Your task to perform on an android device: Show me productivity apps on the Play Store Image 0: 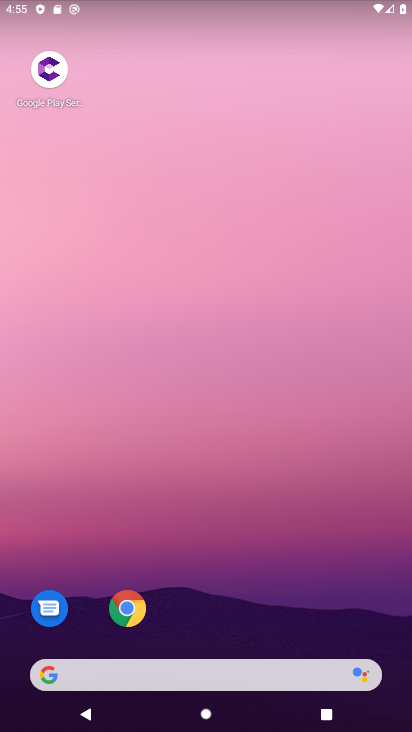
Step 0: drag from (253, 549) to (176, 49)
Your task to perform on an android device: Show me productivity apps on the Play Store Image 1: 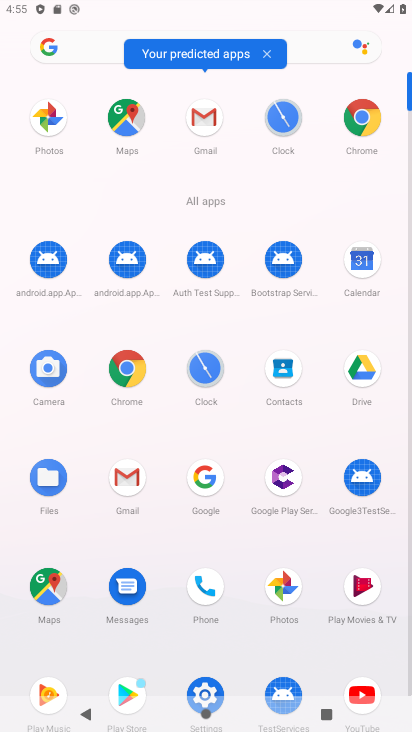
Step 1: drag from (173, 476) to (236, 279)
Your task to perform on an android device: Show me productivity apps on the Play Store Image 2: 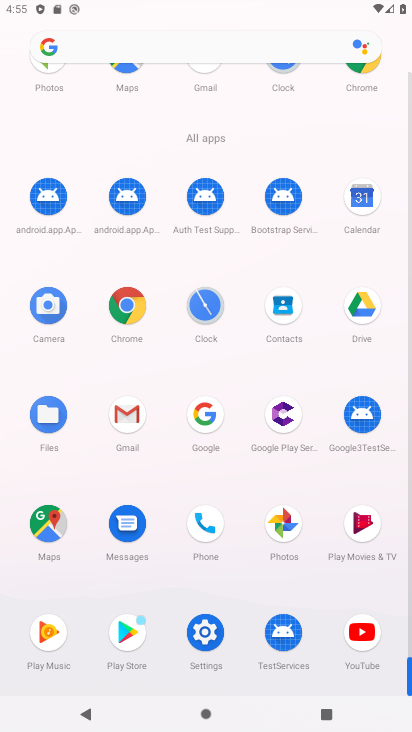
Step 2: click (127, 630)
Your task to perform on an android device: Show me productivity apps on the Play Store Image 3: 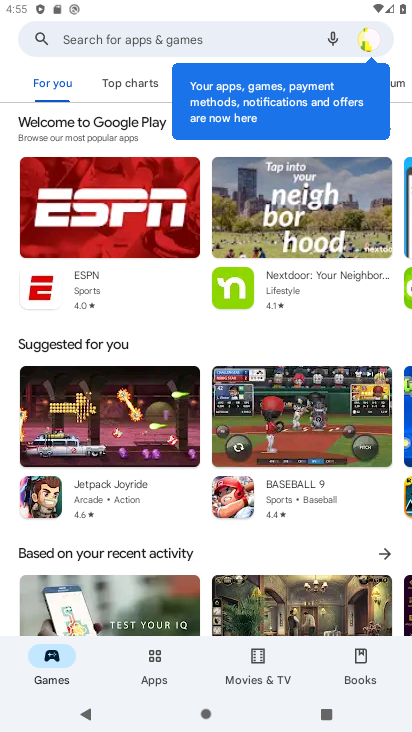
Step 3: click (153, 655)
Your task to perform on an android device: Show me productivity apps on the Play Store Image 4: 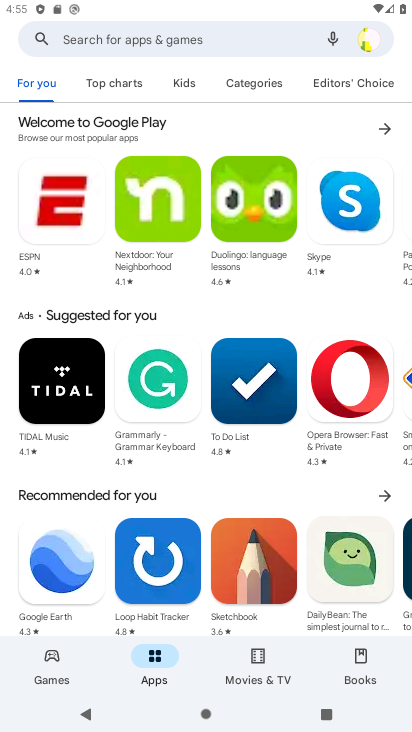
Step 4: click (256, 82)
Your task to perform on an android device: Show me productivity apps on the Play Store Image 5: 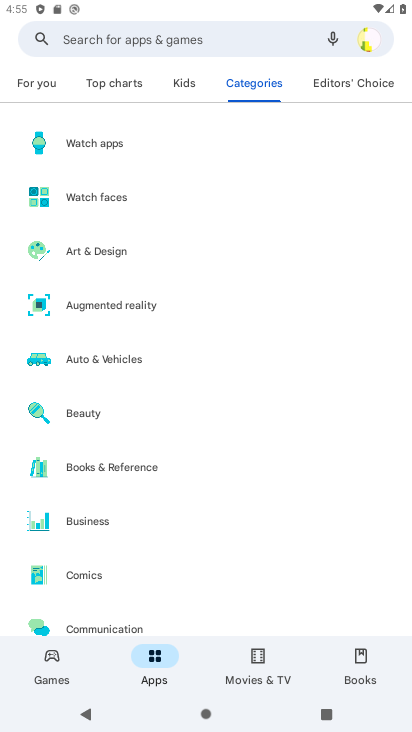
Step 5: drag from (155, 522) to (213, 422)
Your task to perform on an android device: Show me productivity apps on the Play Store Image 6: 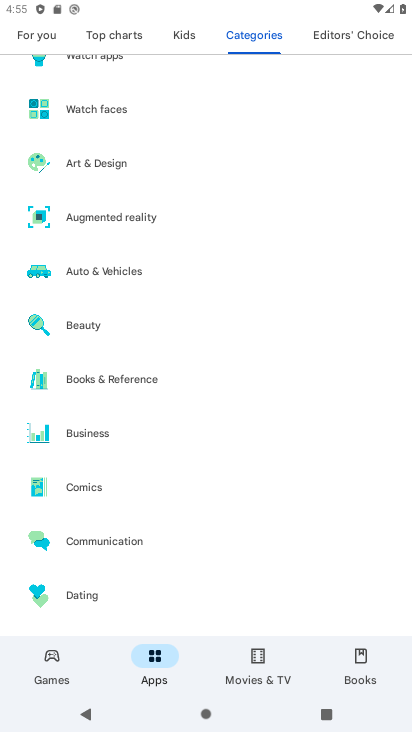
Step 6: drag from (128, 509) to (205, 407)
Your task to perform on an android device: Show me productivity apps on the Play Store Image 7: 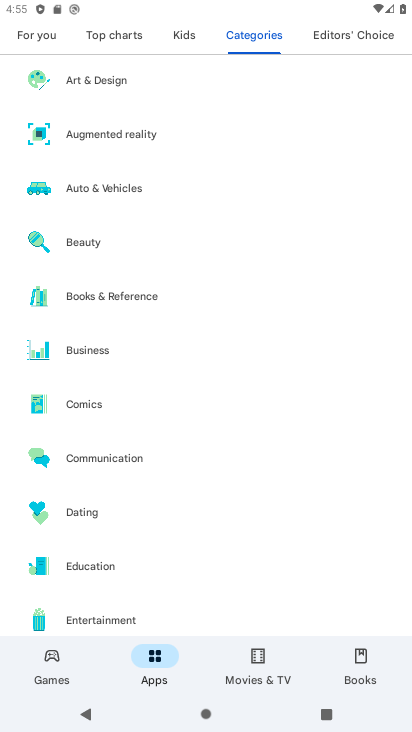
Step 7: drag from (134, 511) to (167, 362)
Your task to perform on an android device: Show me productivity apps on the Play Store Image 8: 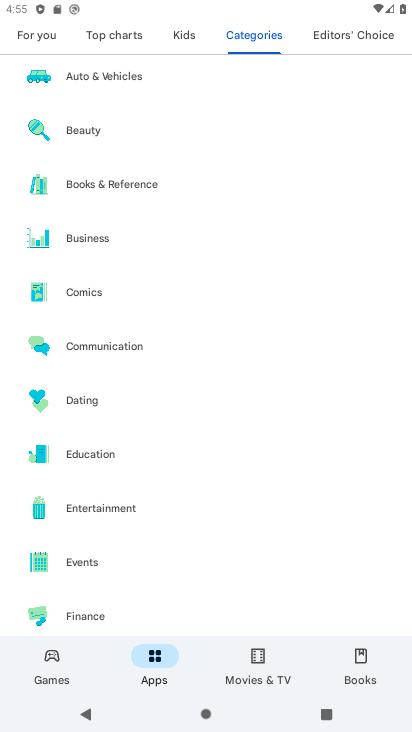
Step 8: drag from (78, 544) to (119, 423)
Your task to perform on an android device: Show me productivity apps on the Play Store Image 9: 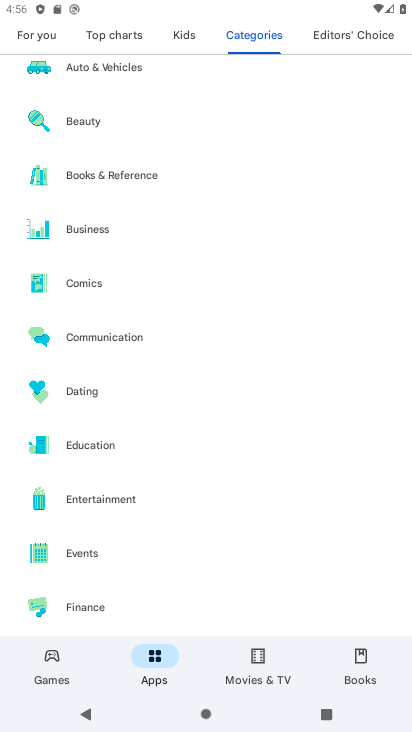
Step 9: drag from (73, 578) to (128, 438)
Your task to perform on an android device: Show me productivity apps on the Play Store Image 10: 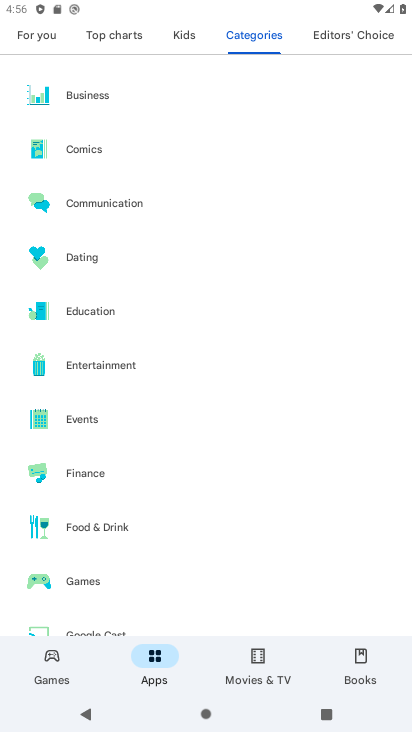
Step 10: drag from (83, 502) to (102, 380)
Your task to perform on an android device: Show me productivity apps on the Play Store Image 11: 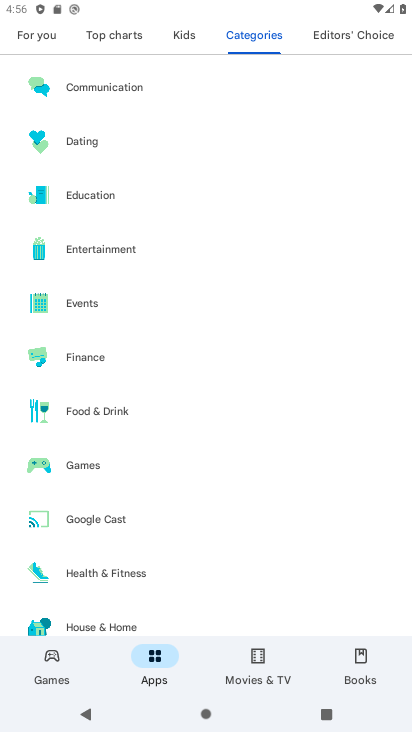
Step 11: drag from (100, 533) to (127, 405)
Your task to perform on an android device: Show me productivity apps on the Play Store Image 12: 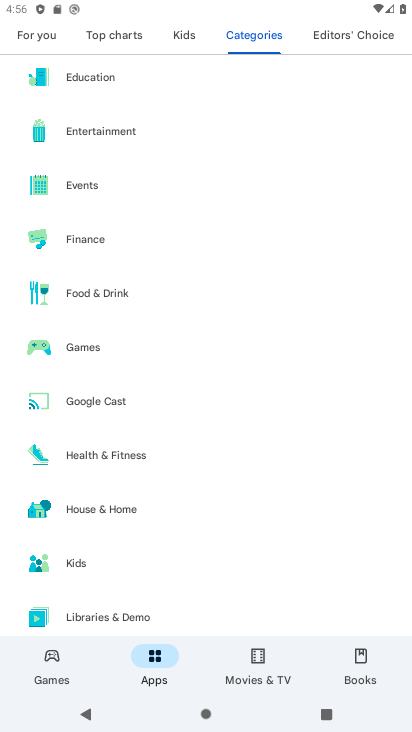
Step 12: drag from (90, 531) to (141, 299)
Your task to perform on an android device: Show me productivity apps on the Play Store Image 13: 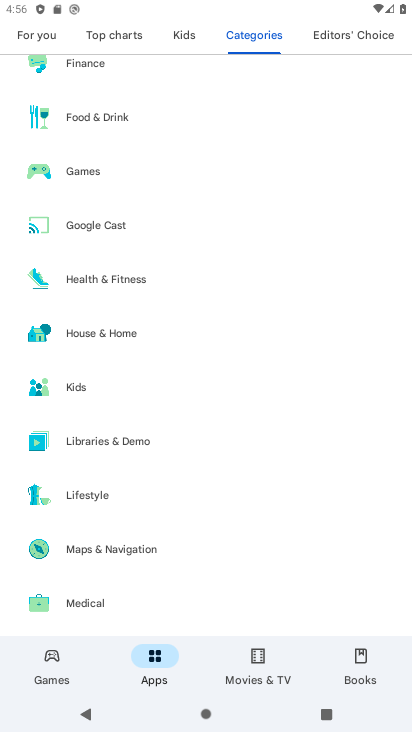
Step 13: drag from (85, 462) to (150, 283)
Your task to perform on an android device: Show me productivity apps on the Play Store Image 14: 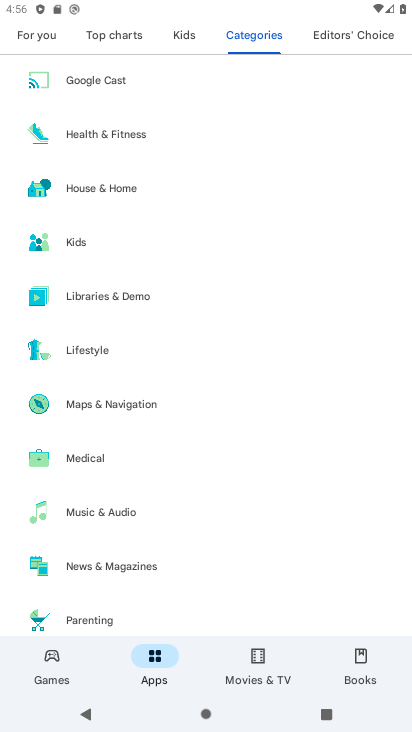
Step 14: drag from (94, 481) to (160, 257)
Your task to perform on an android device: Show me productivity apps on the Play Store Image 15: 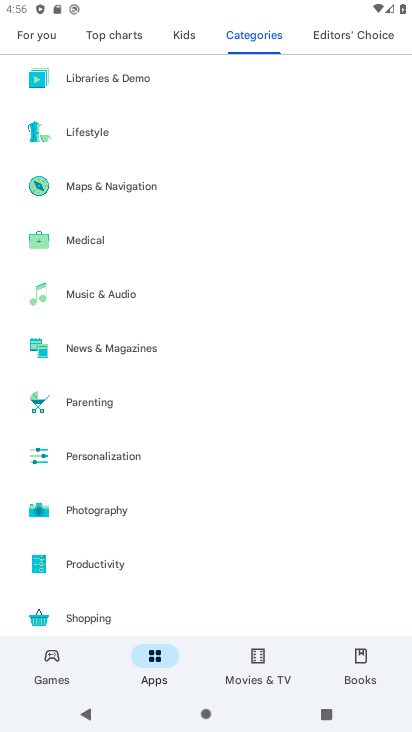
Step 15: click (105, 568)
Your task to perform on an android device: Show me productivity apps on the Play Store Image 16: 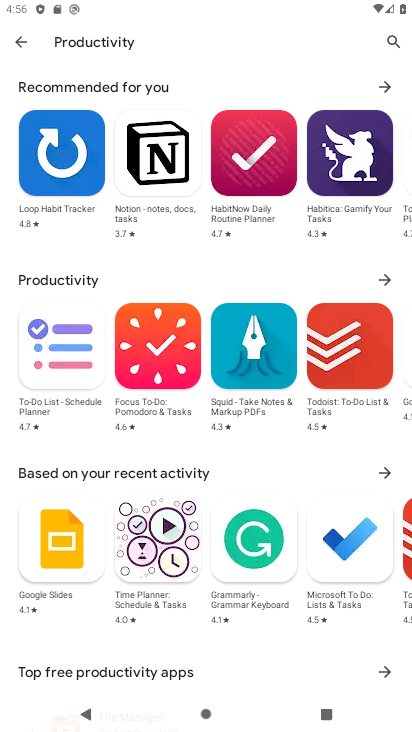
Step 16: task complete